Your task to perform on an android device: move an email to a new category in the gmail app Image 0: 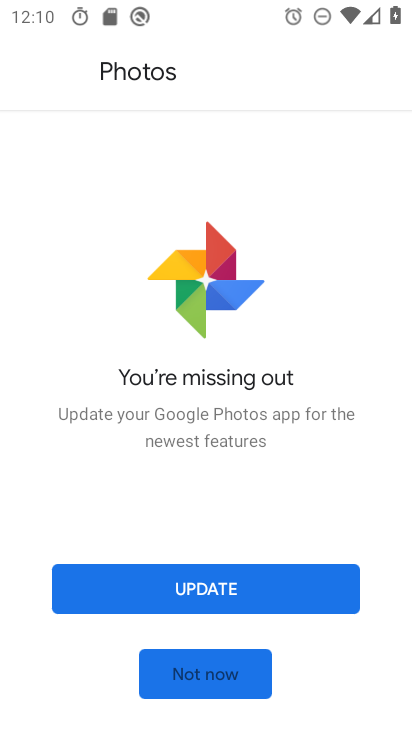
Step 0: press home button
Your task to perform on an android device: move an email to a new category in the gmail app Image 1: 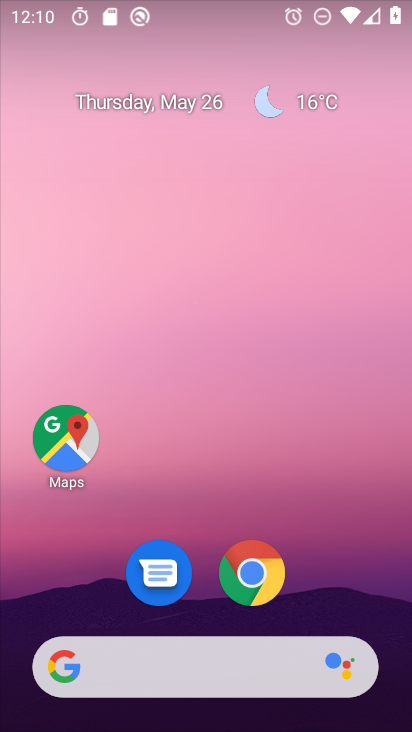
Step 1: drag from (338, 578) to (377, 1)
Your task to perform on an android device: move an email to a new category in the gmail app Image 2: 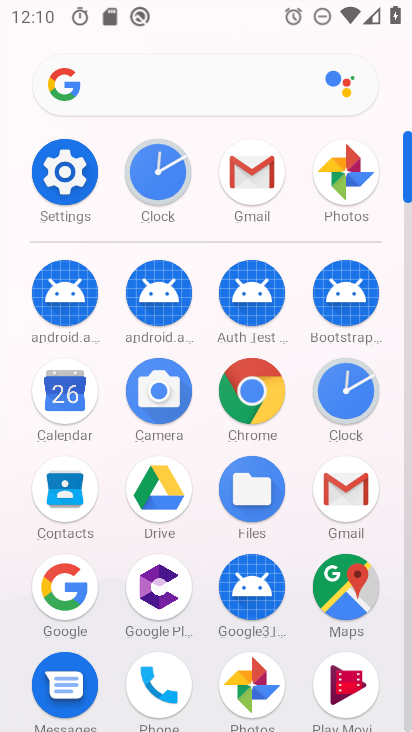
Step 2: click (240, 177)
Your task to perform on an android device: move an email to a new category in the gmail app Image 3: 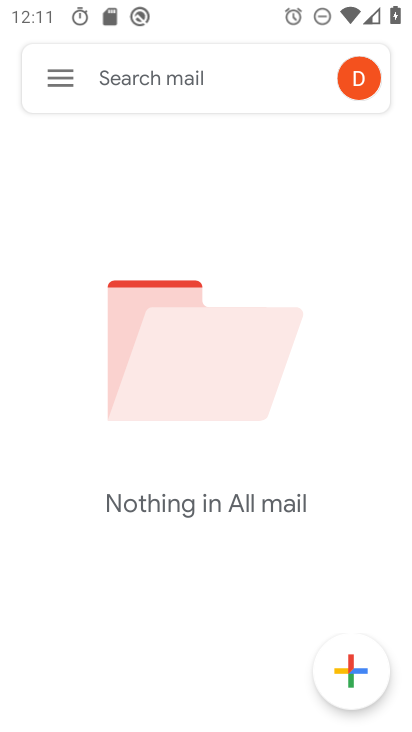
Step 3: task complete